Your task to perform on an android device: Go to Reddit.com Image 0: 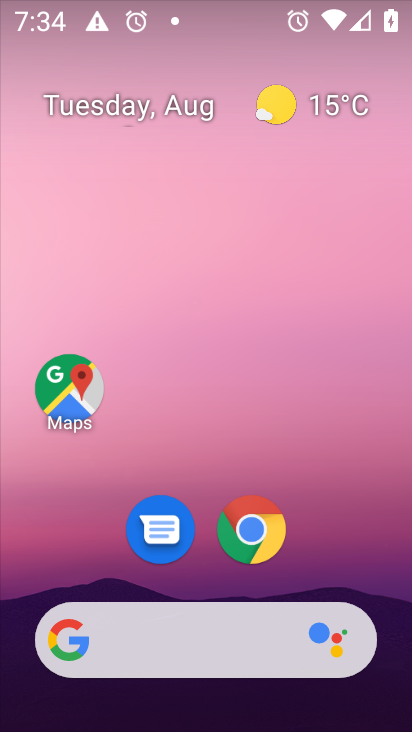
Step 0: press home button
Your task to perform on an android device: Go to Reddit.com Image 1: 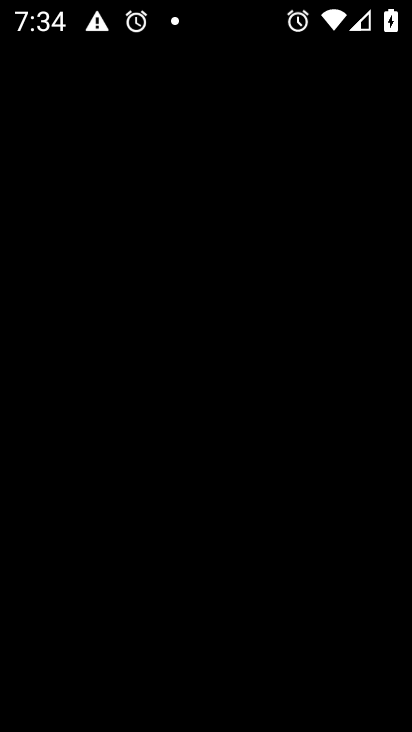
Step 1: click (194, 9)
Your task to perform on an android device: Go to Reddit.com Image 2: 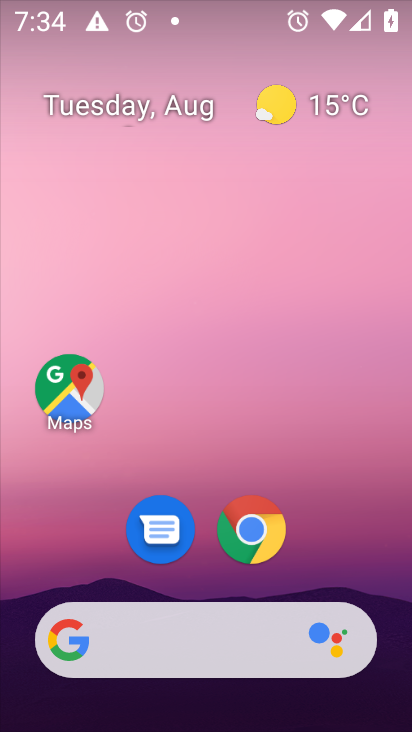
Step 2: click (68, 644)
Your task to perform on an android device: Go to Reddit.com Image 3: 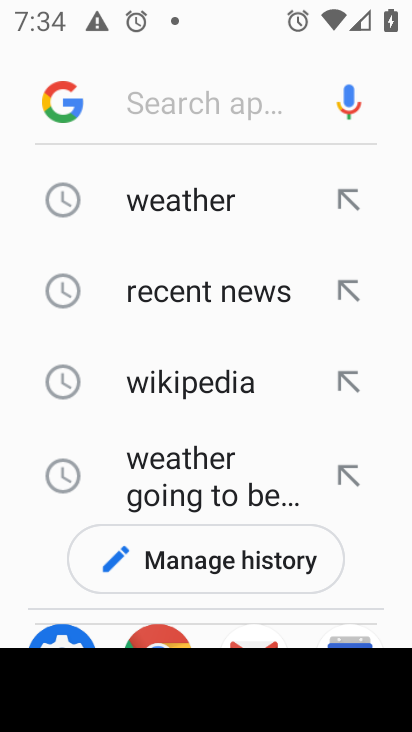
Step 3: type "Reddit.com"
Your task to perform on an android device: Go to Reddit.com Image 4: 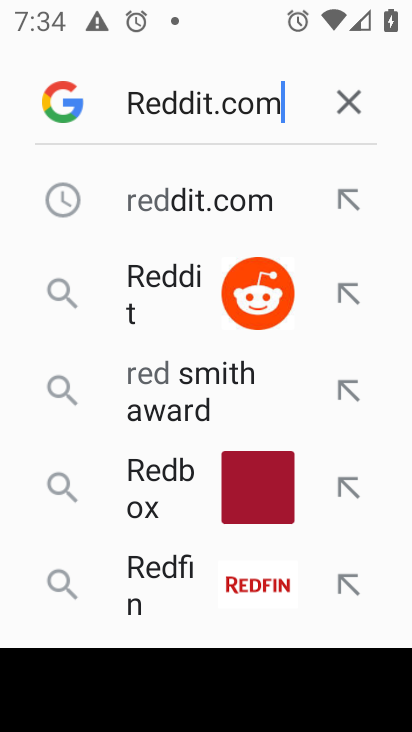
Step 4: press enter
Your task to perform on an android device: Go to Reddit.com Image 5: 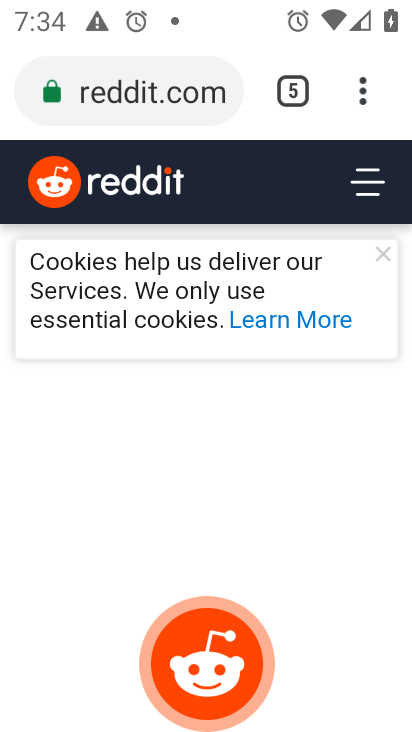
Step 5: task complete